Your task to perform on an android device: move a message to another label in the gmail app Image 0: 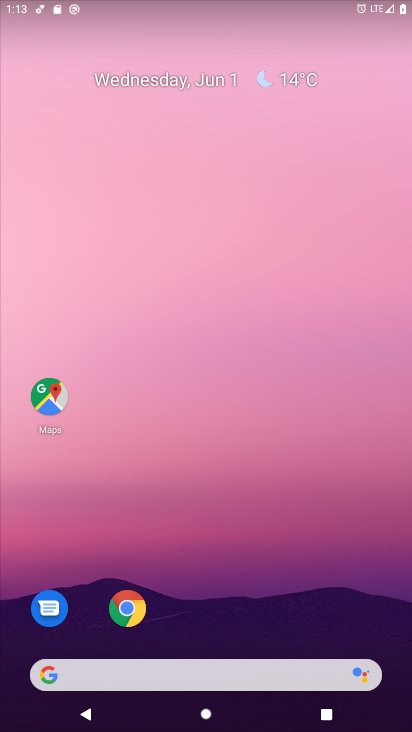
Step 0: drag from (213, 613) to (352, 11)
Your task to perform on an android device: move a message to another label in the gmail app Image 1: 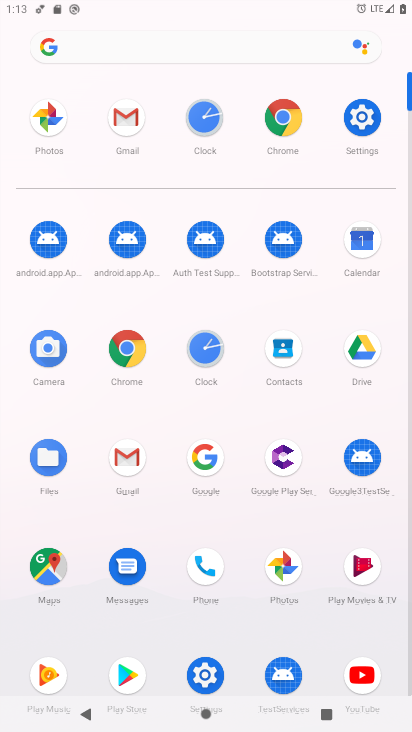
Step 1: click (133, 478)
Your task to perform on an android device: move a message to another label in the gmail app Image 2: 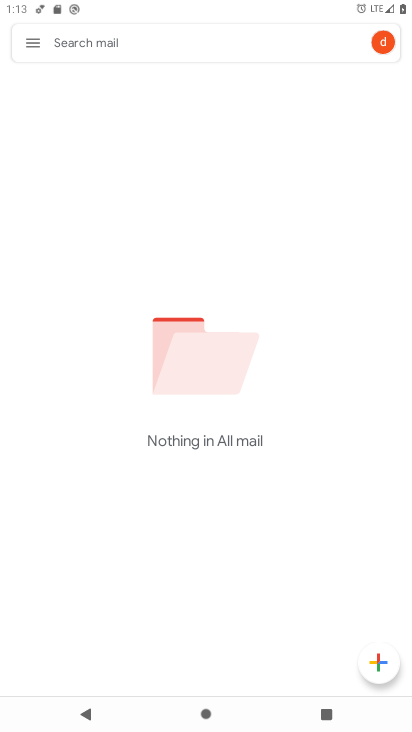
Step 2: task complete